Your task to perform on an android device: add a contact Image 0: 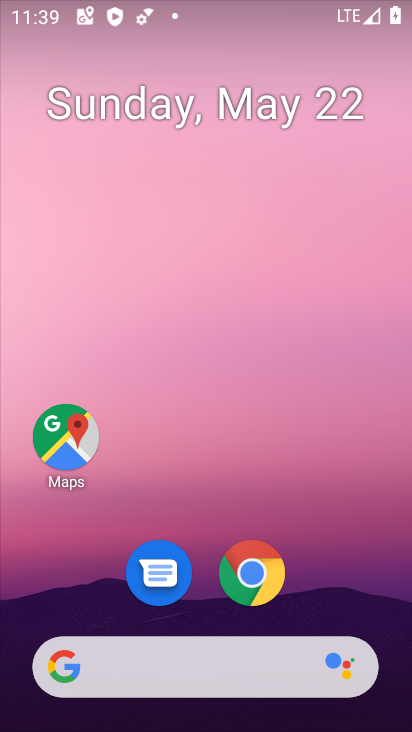
Step 0: drag from (196, 554) to (207, 61)
Your task to perform on an android device: add a contact Image 1: 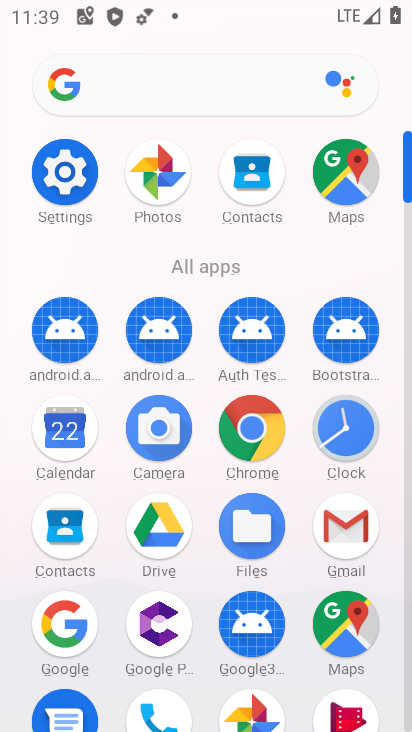
Step 1: click (59, 529)
Your task to perform on an android device: add a contact Image 2: 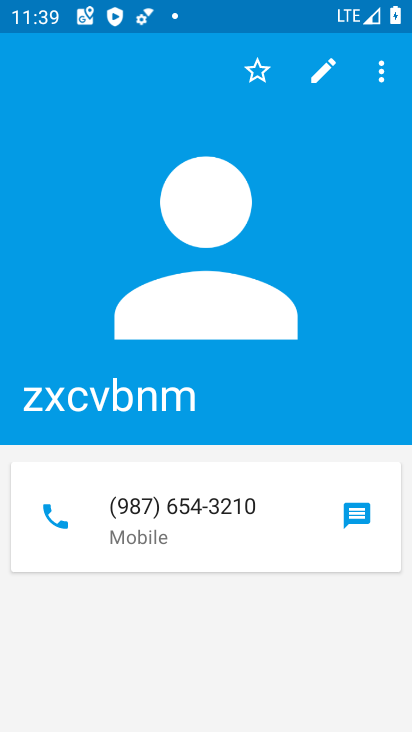
Step 2: press back button
Your task to perform on an android device: add a contact Image 3: 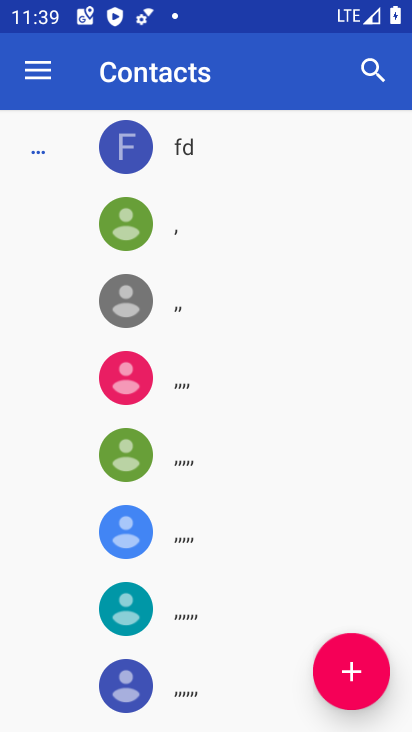
Step 3: click (358, 667)
Your task to perform on an android device: add a contact Image 4: 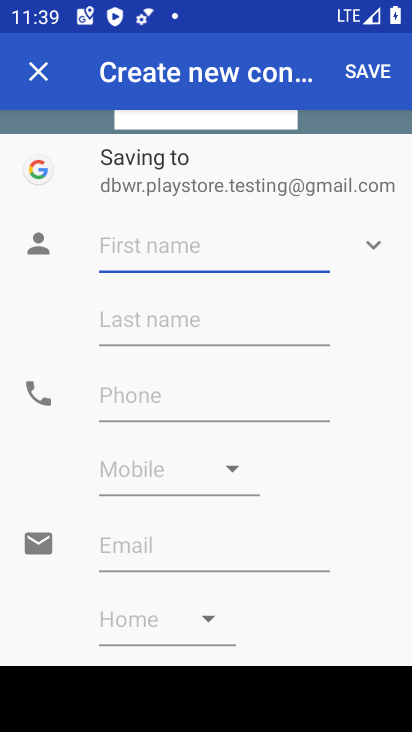
Step 4: type "zsxdcfvgbhnjmkl"
Your task to perform on an android device: add a contact Image 5: 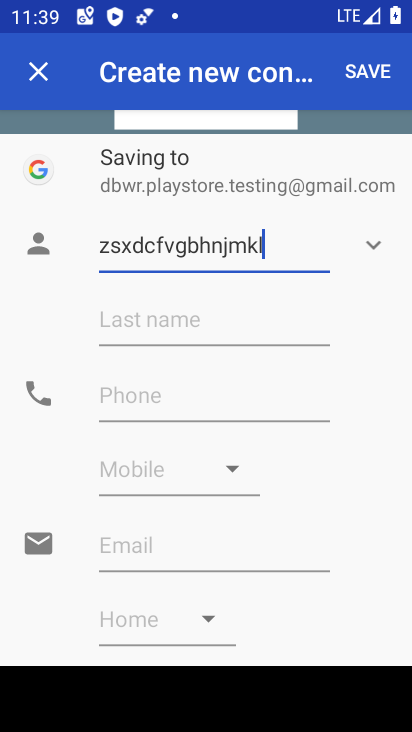
Step 5: click (191, 397)
Your task to perform on an android device: add a contact Image 6: 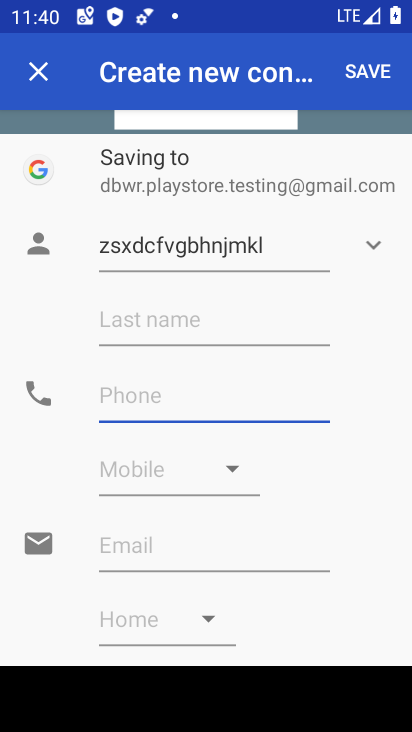
Step 6: type "65757899098"
Your task to perform on an android device: add a contact Image 7: 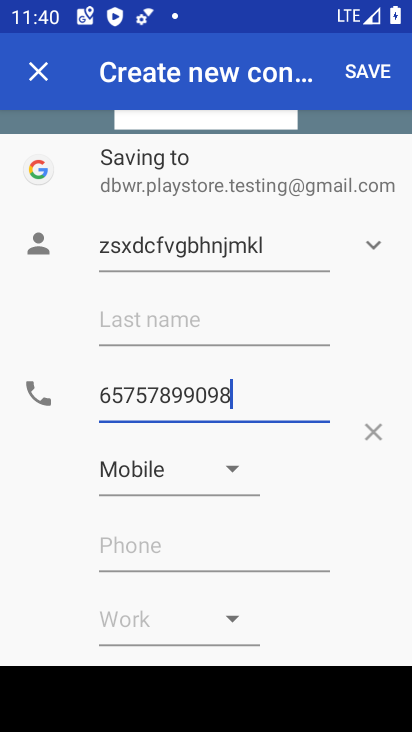
Step 7: click (374, 71)
Your task to perform on an android device: add a contact Image 8: 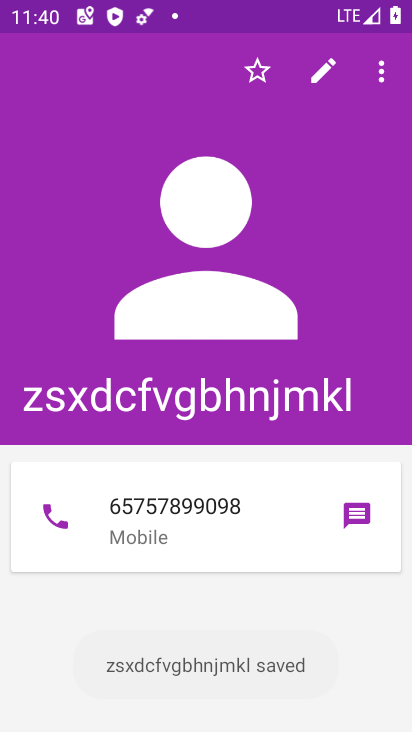
Step 8: task complete